Your task to perform on an android device: install app "Move to iOS" Image 0: 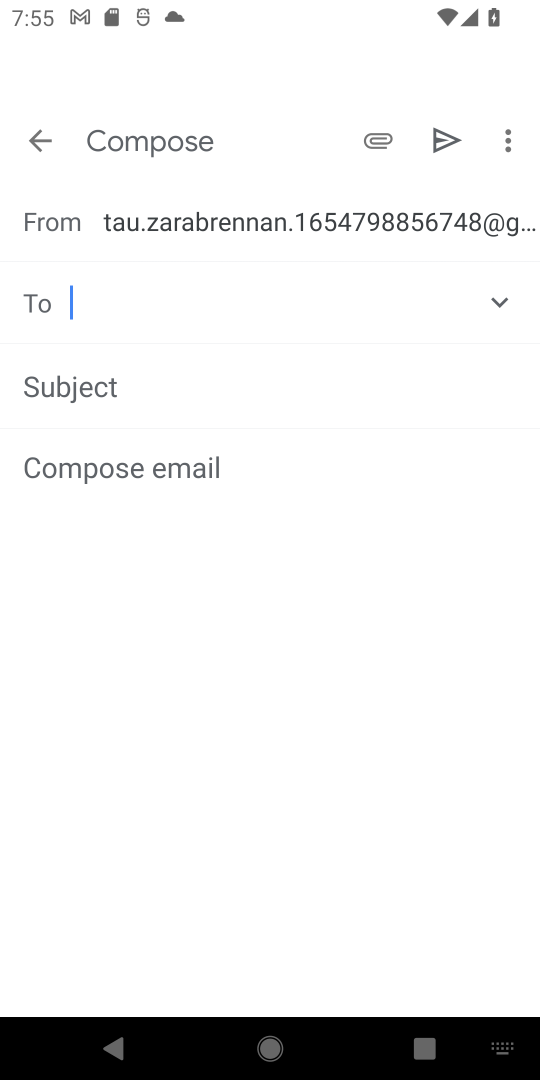
Step 0: press home button
Your task to perform on an android device: install app "Move to iOS" Image 1: 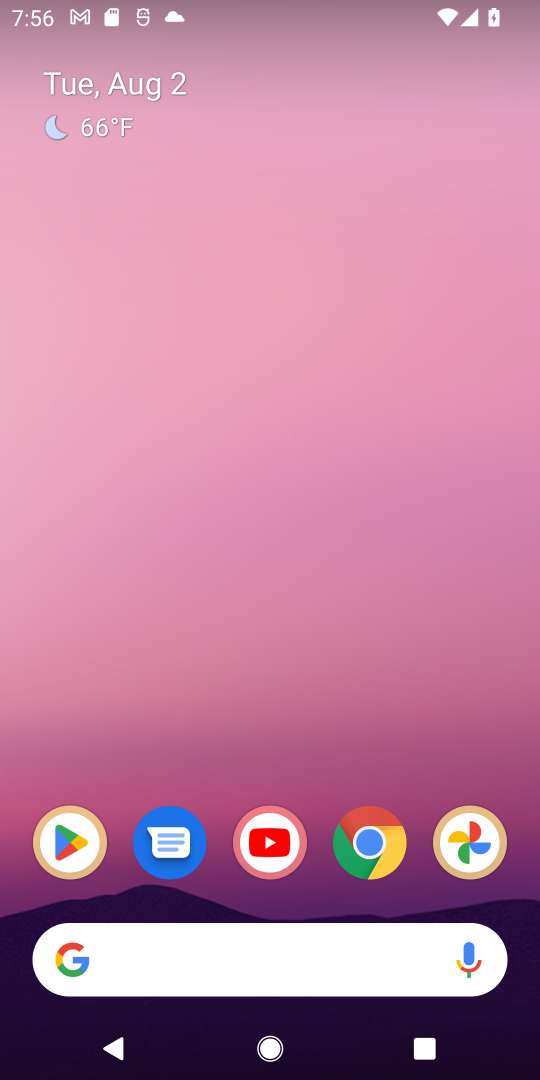
Step 1: click (65, 816)
Your task to perform on an android device: install app "Move to iOS" Image 2: 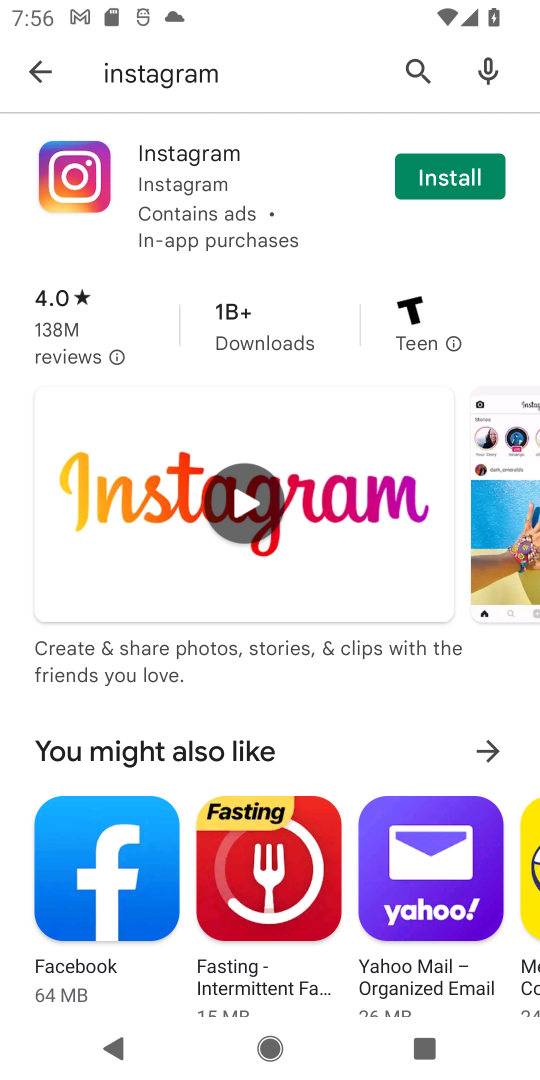
Step 2: click (218, 84)
Your task to perform on an android device: install app "Move to iOS" Image 3: 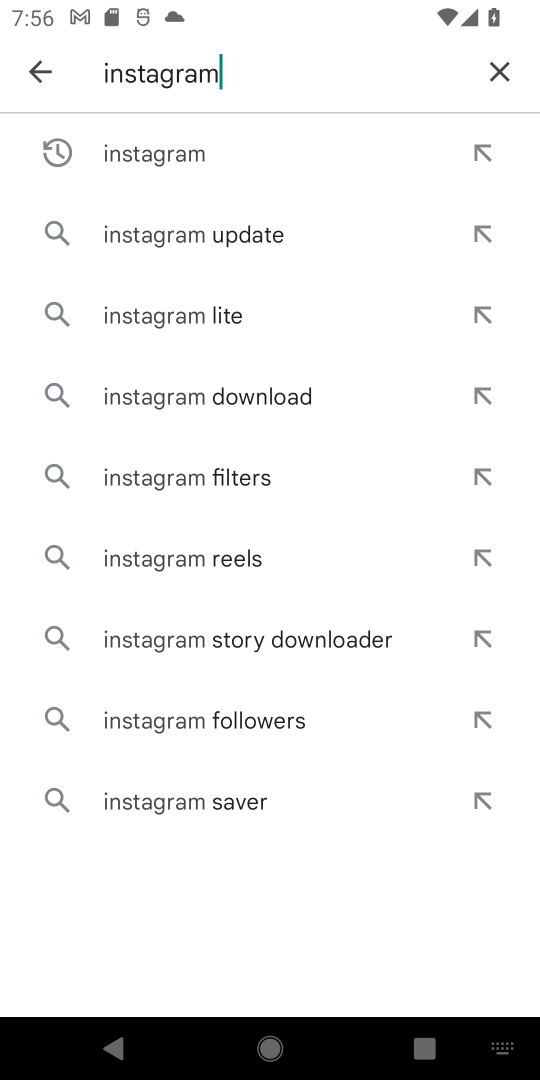
Step 3: click (506, 68)
Your task to perform on an android device: install app "Move to iOS" Image 4: 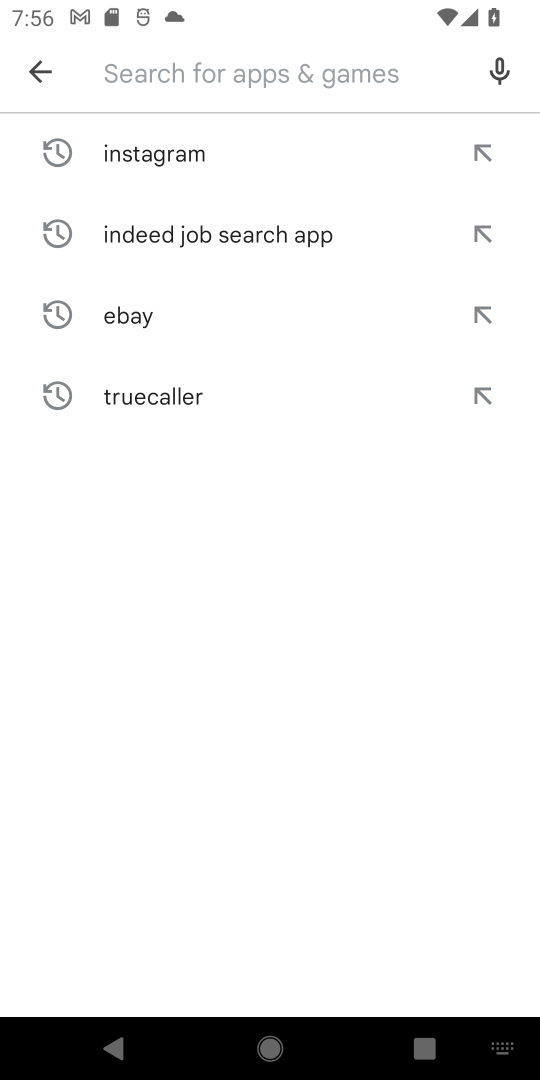
Step 4: type "move "
Your task to perform on an android device: install app "Move to iOS" Image 5: 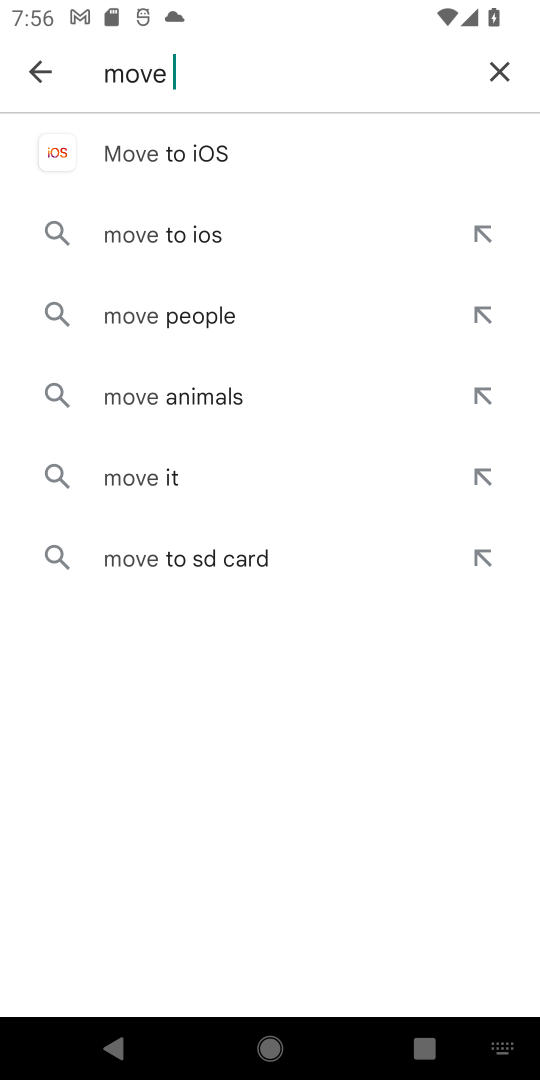
Step 5: type "to ios"
Your task to perform on an android device: install app "Move to iOS" Image 6: 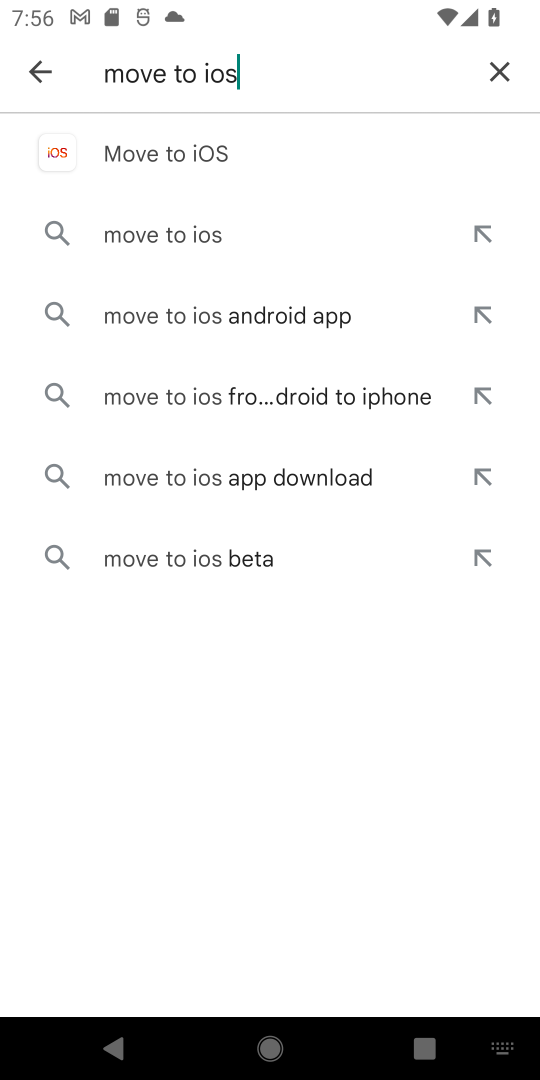
Step 6: click (150, 155)
Your task to perform on an android device: install app "Move to iOS" Image 7: 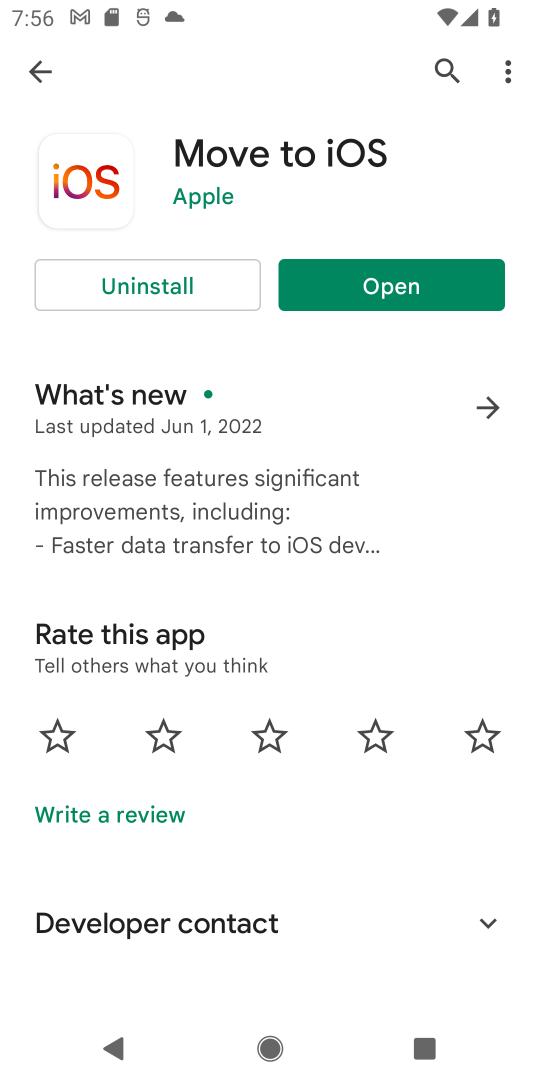
Step 7: task complete